Your task to perform on an android device: open app "WhatsApp Messenger" (install if not already installed) and go to login screen Image 0: 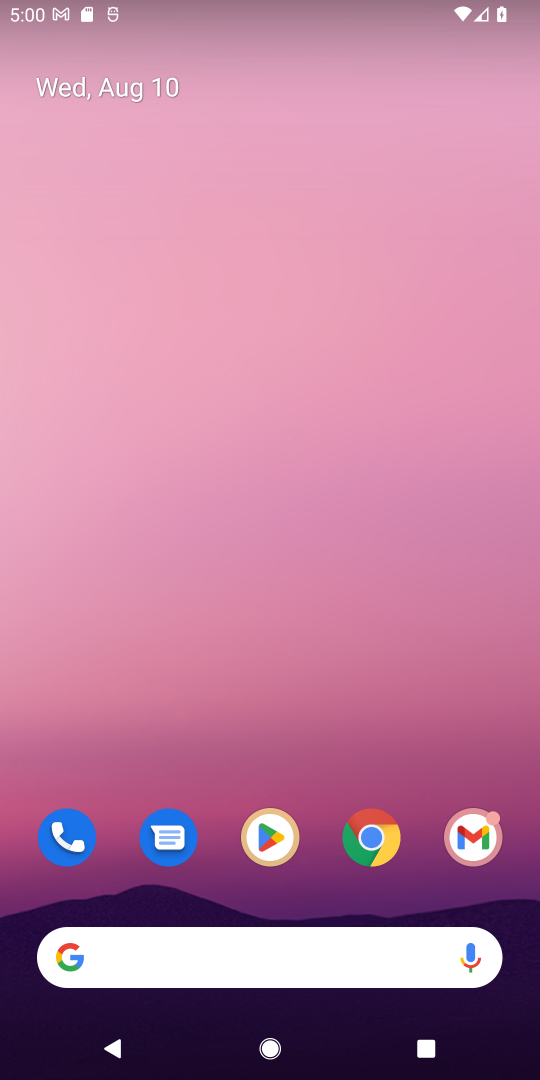
Step 0: press home button
Your task to perform on an android device: open app "WhatsApp Messenger" (install if not already installed) and go to login screen Image 1: 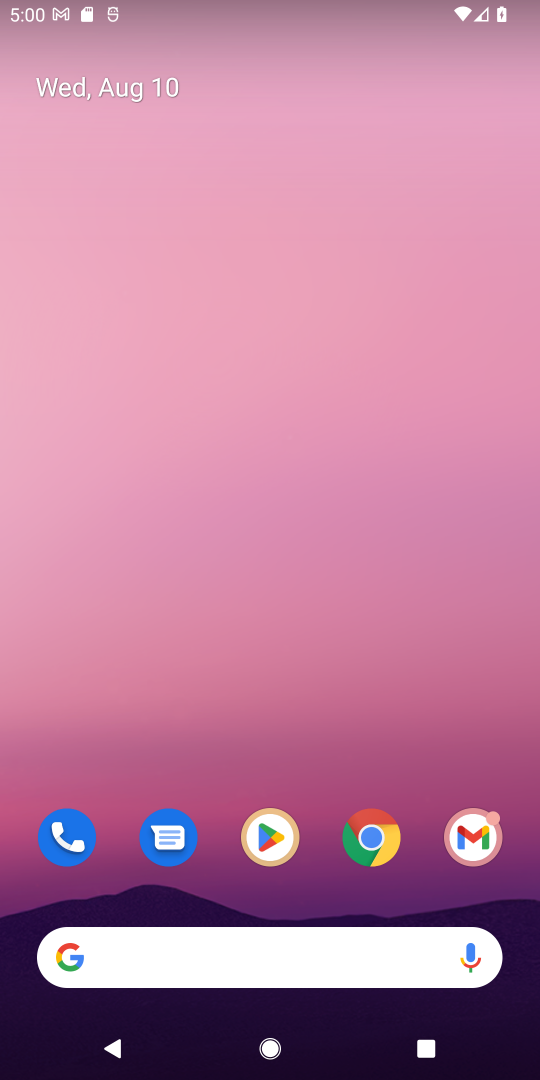
Step 1: click (265, 834)
Your task to perform on an android device: open app "WhatsApp Messenger" (install if not already installed) and go to login screen Image 2: 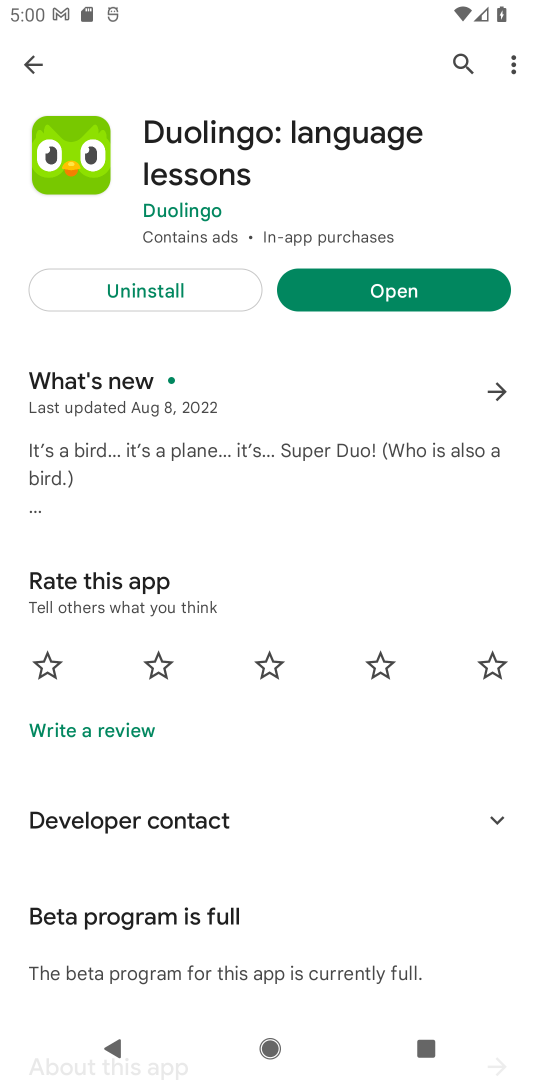
Step 2: click (458, 55)
Your task to perform on an android device: open app "WhatsApp Messenger" (install if not already installed) and go to login screen Image 3: 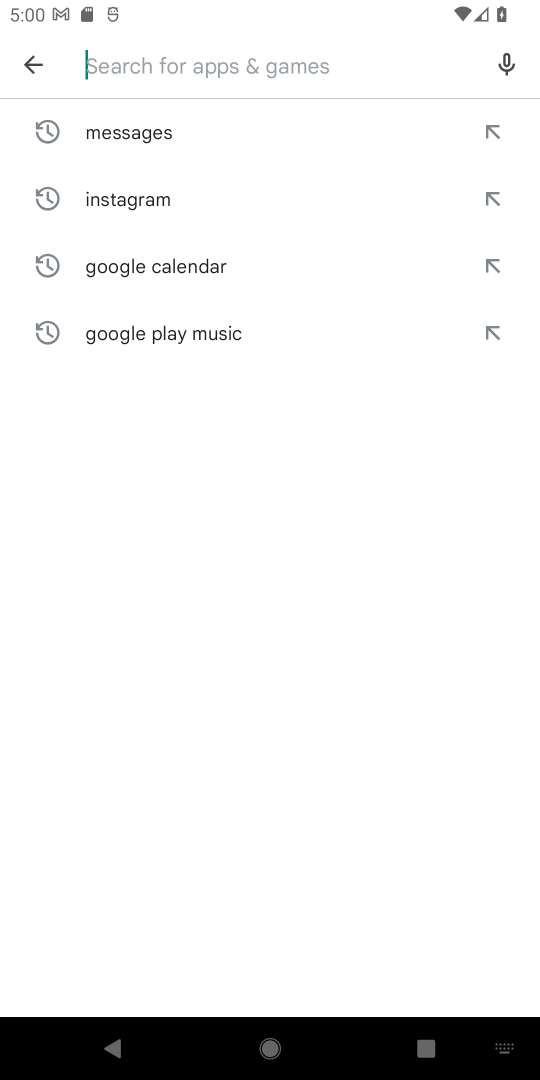
Step 3: type "WhatsApp Messenger"
Your task to perform on an android device: open app "WhatsApp Messenger" (install if not already installed) and go to login screen Image 4: 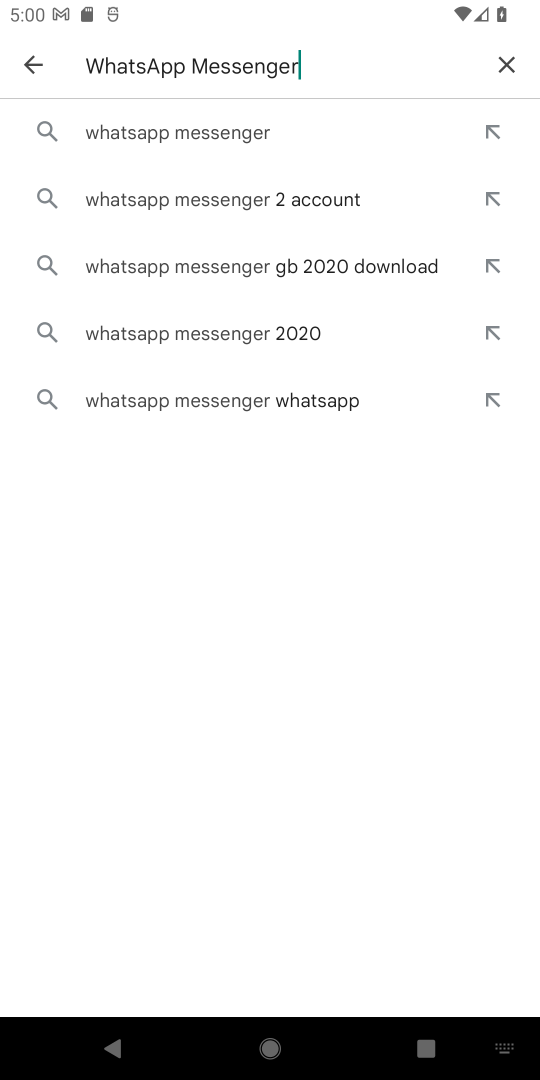
Step 4: click (215, 130)
Your task to perform on an android device: open app "WhatsApp Messenger" (install if not already installed) and go to login screen Image 5: 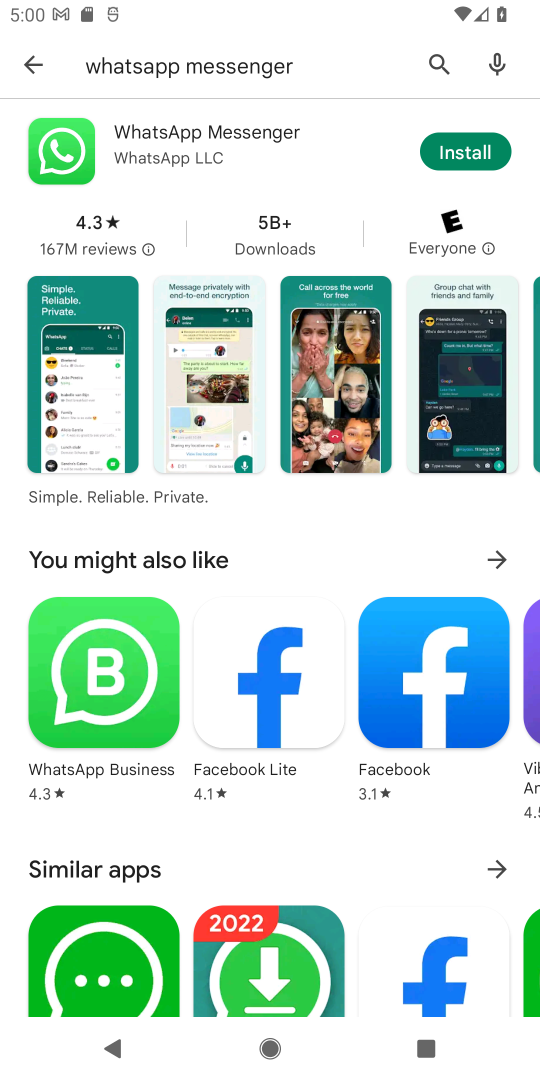
Step 5: click (454, 155)
Your task to perform on an android device: open app "WhatsApp Messenger" (install if not already installed) and go to login screen Image 6: 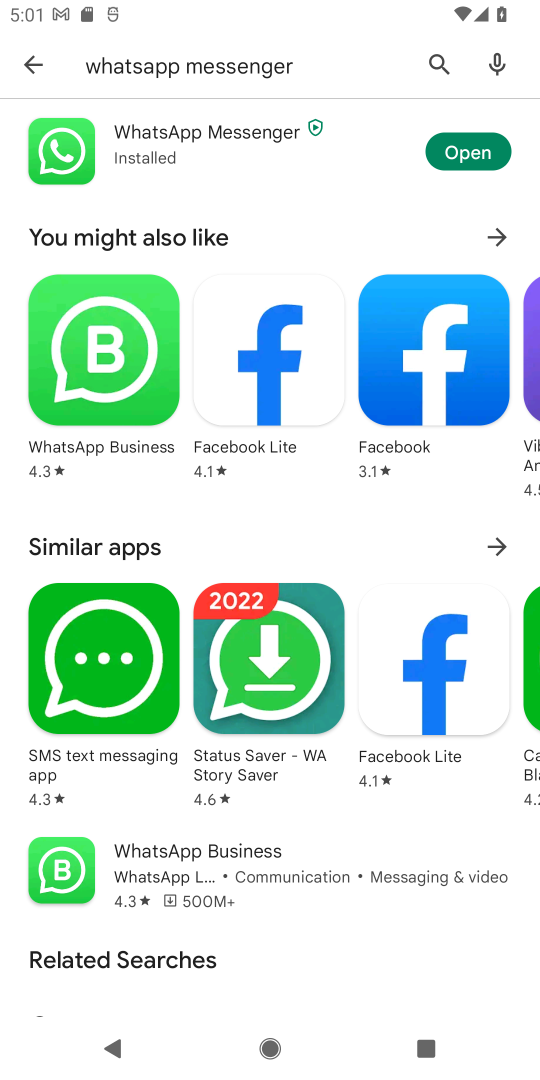
Step 6: click (461, 143)
Your task to perform on an android device: open app "WhatsApp Messenger" (install if not already installed) and go to login screen Image 7: 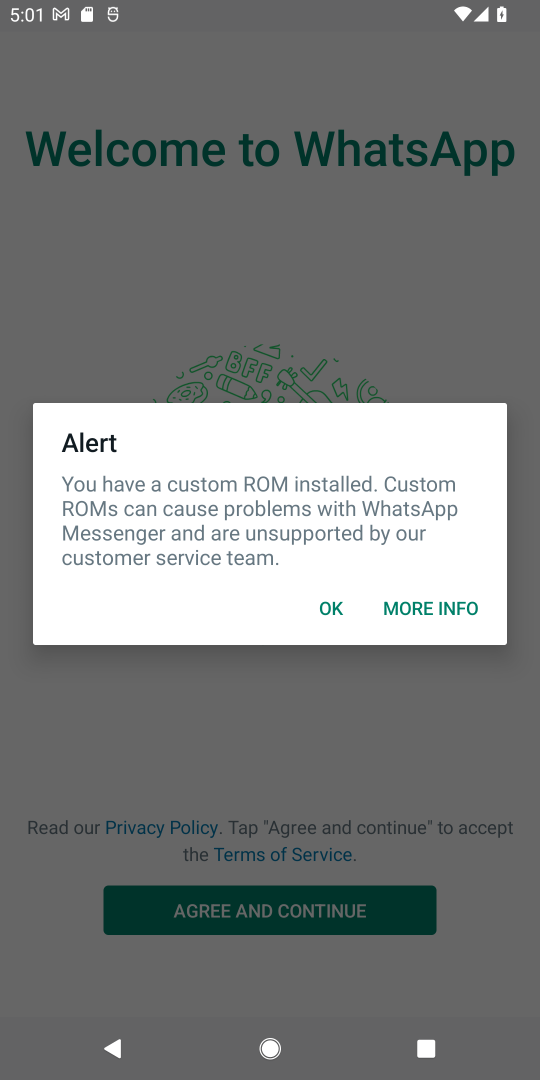
Step 7: click (337, 617)
Your task to perform on an android device: open app "WhatsApp Messenger" (install if not already installed) and go to login screen Image 8: 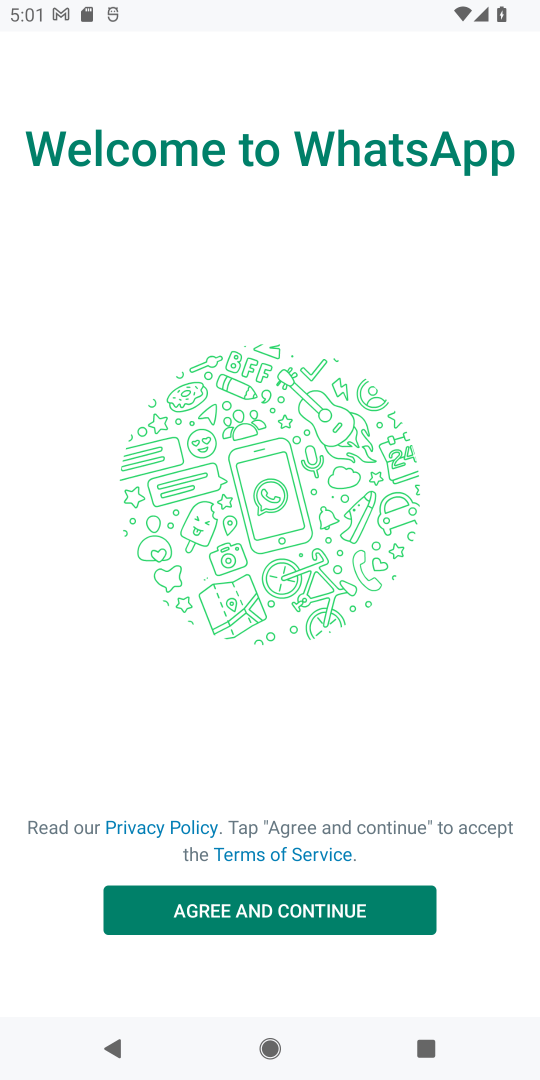
Step 8: click (377, 896)
Your task to perform on an android device: open app "WhatsApp Messenger" (install if not already installed) and go to login screen Image 9: 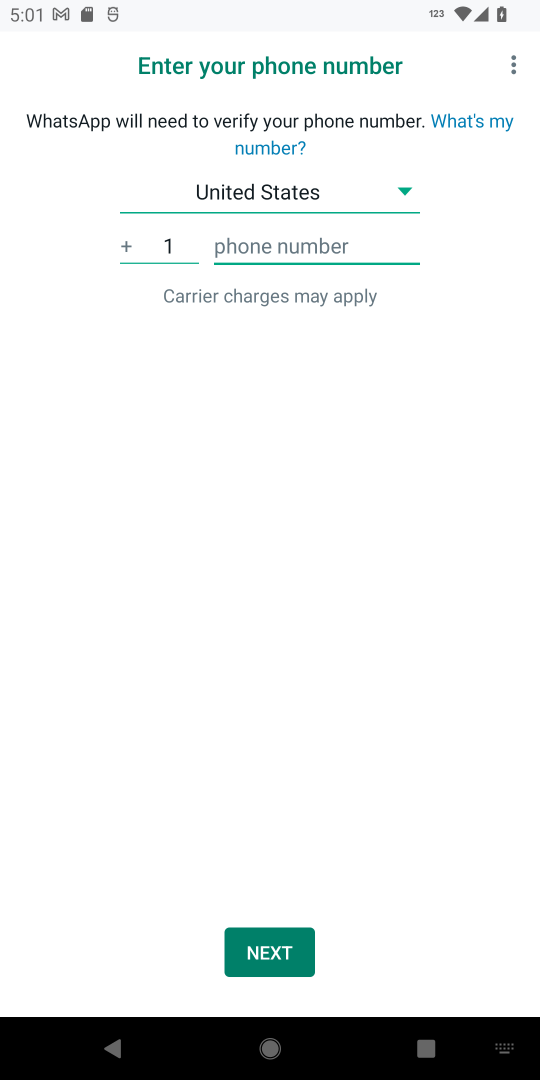
Step 9: task complete